Your task to perform on an android device: check out phone information Image 0: 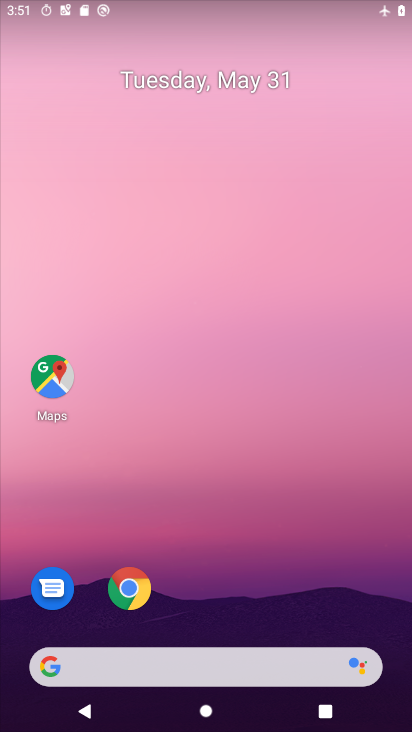
Step 0: drag from (277, 648) to (253, 187)
Your task to perform on an android device: check out phone information Image 1: 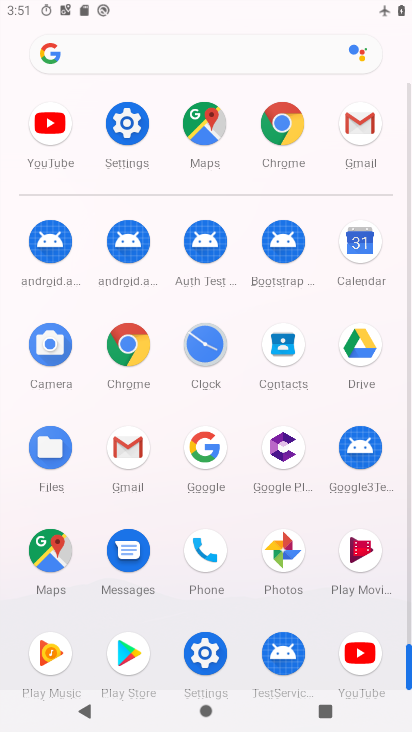
Step 1: click (135, 148)
Your task to perform on an android device: check out phone information Image 2: 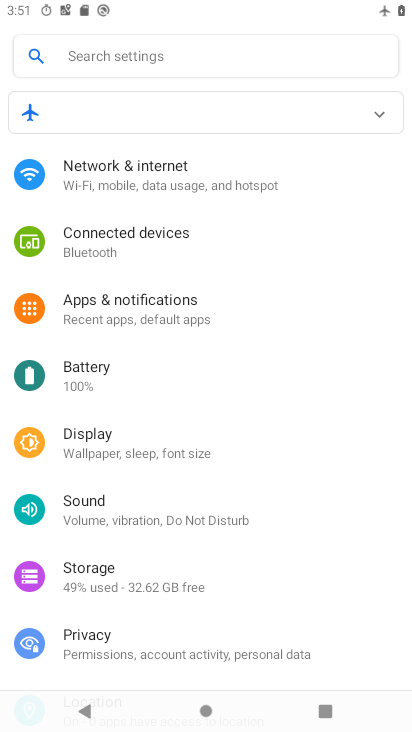
Step 2: drag from (209, 559) to (256, 136)
Your task to perform on an android device: check out phone information Image 3: 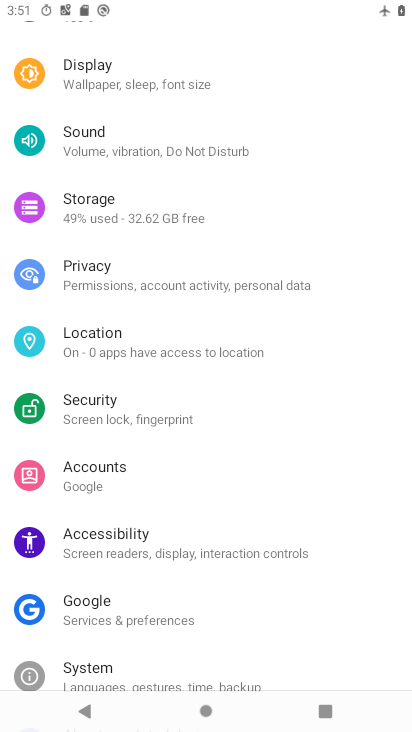
Step 3: drag from (207, 512) to (254, 74)
Your task to perform on an android device: check out phone information Image 4: 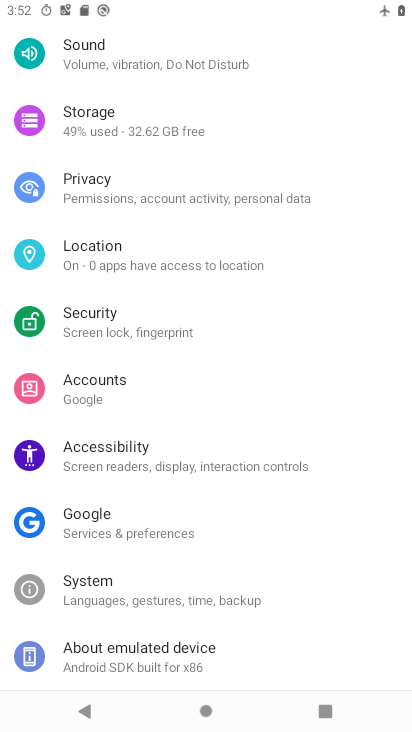
Step 4: click (175, 646)
Your task to perform on an android device: check out phone information Image 5: 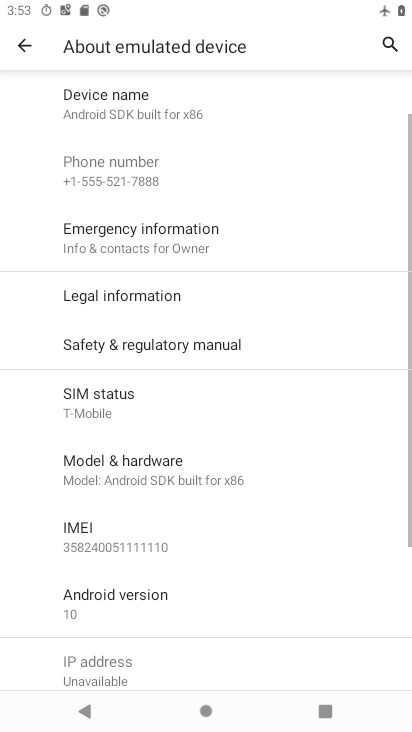
Step 5: task complete